Your task to perform on an android device: toggle airplane mode Image 0: 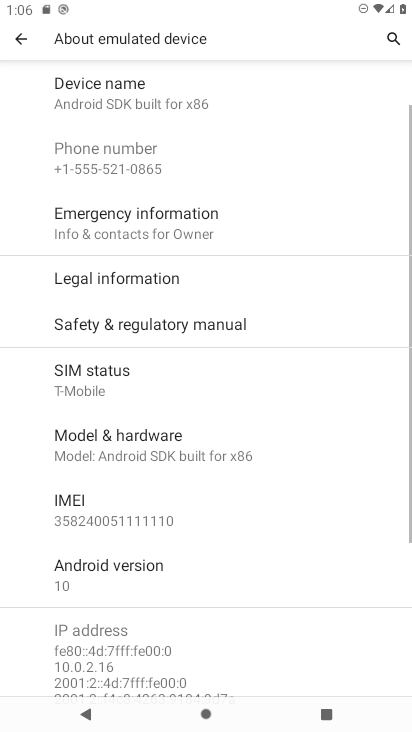
Step 0: press home button
Your task to perform on an android device: toggle airplane mode Image 1: 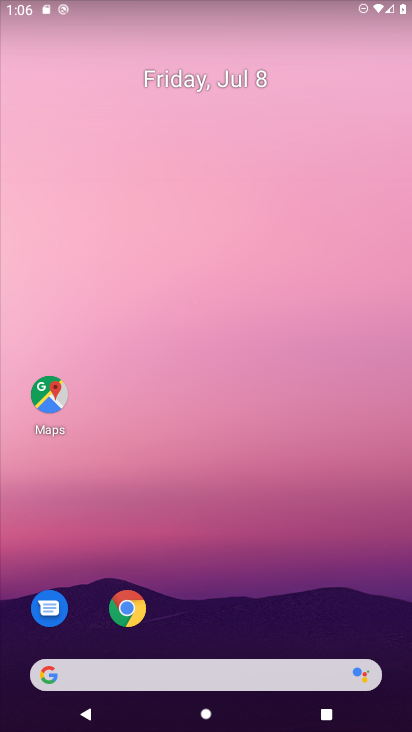
Step 1: drag from (252, 614) to (241, 105)
Your task to perform on an android device: toggle airplane mode Image 2: 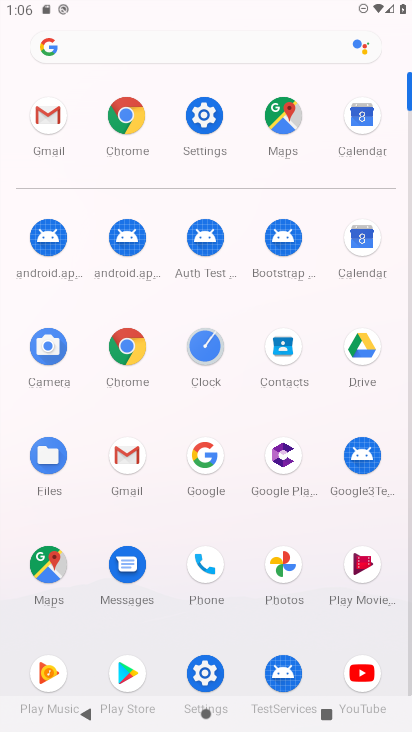
Step 2: click (210, 125)
Your task to perform on an android device: toggle airplane mode Image 3: 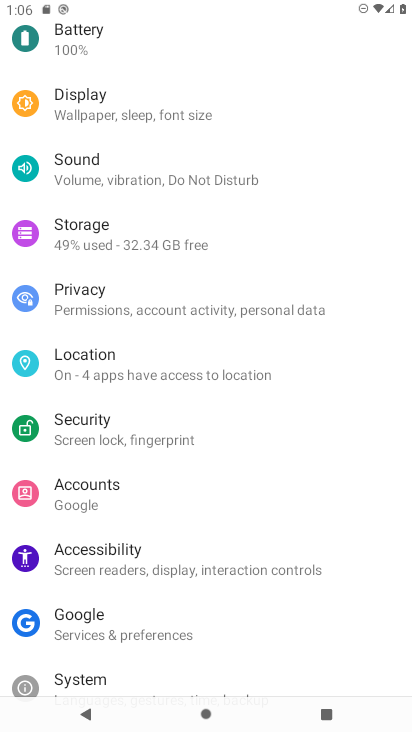
Step 3: drag from (163, 87) to (165, 479)
Your task to perform on an android device: toggle airplane mode Image 4: 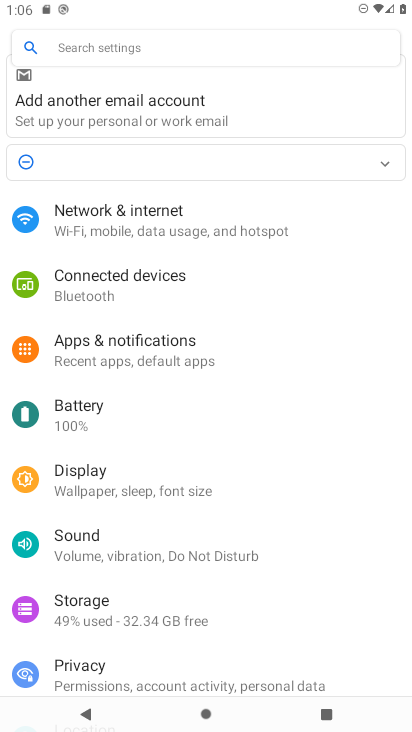
Step 4: click (205, 232)
Your task to perform on an android device: toggle airplane mode Image 5: 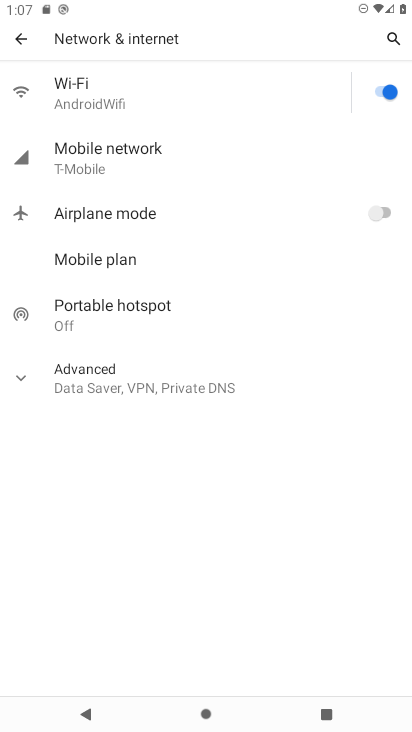
Step 5: click (363, 228)
Your task to perform on an android device: toggle airplane mode Image 6: 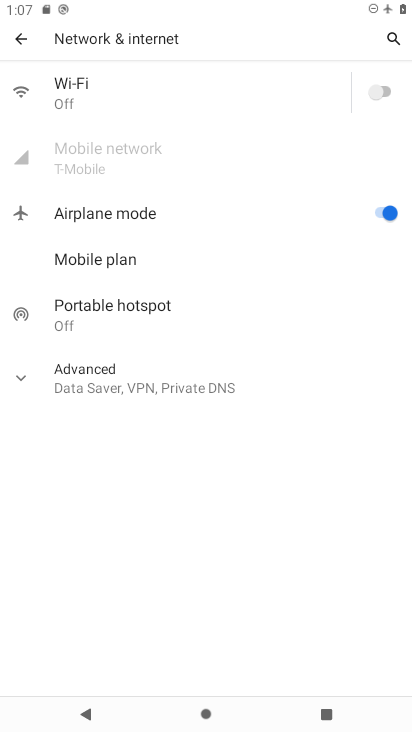
Step 6: task complete